Your task to perform on an android device: Turn off the flashlight Image 0: 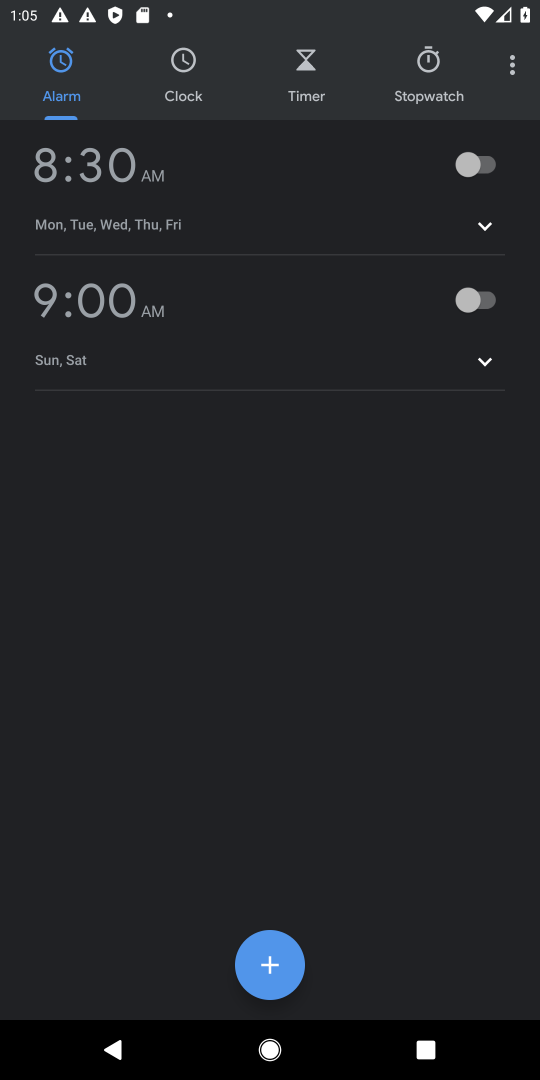
Step 0: press home button
Your task to perform on an android device: Turn off the flashlight Image 1: 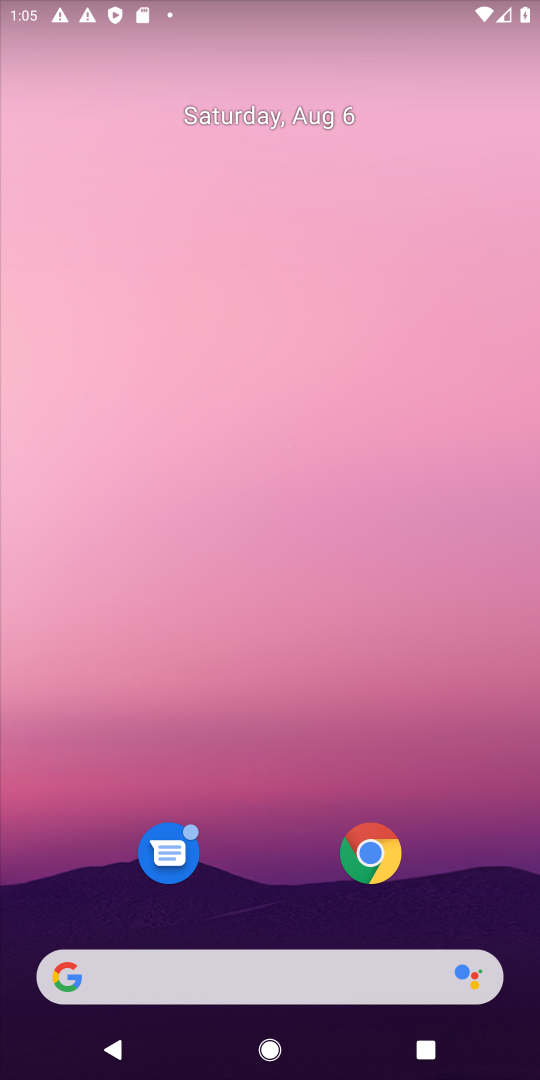
Step 1: drag from (299, 23) to (277, 890)
Your task to perform on an android device: Turn off the flashlight Image 2: 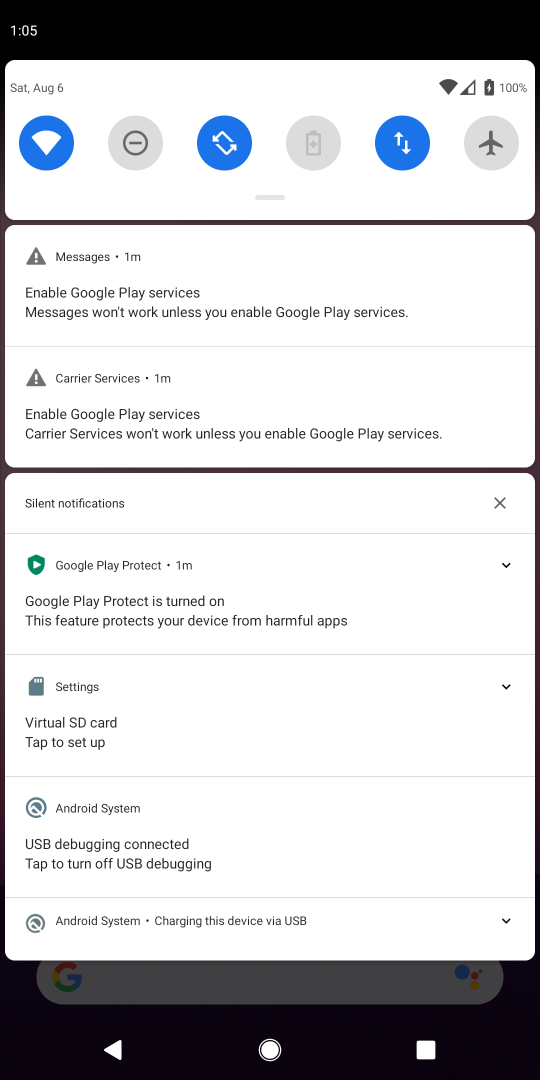
Step 2: drag from (265, 198) to (310, 727)
Your task to perform on an android device: Turn off the flashlight Image 3: 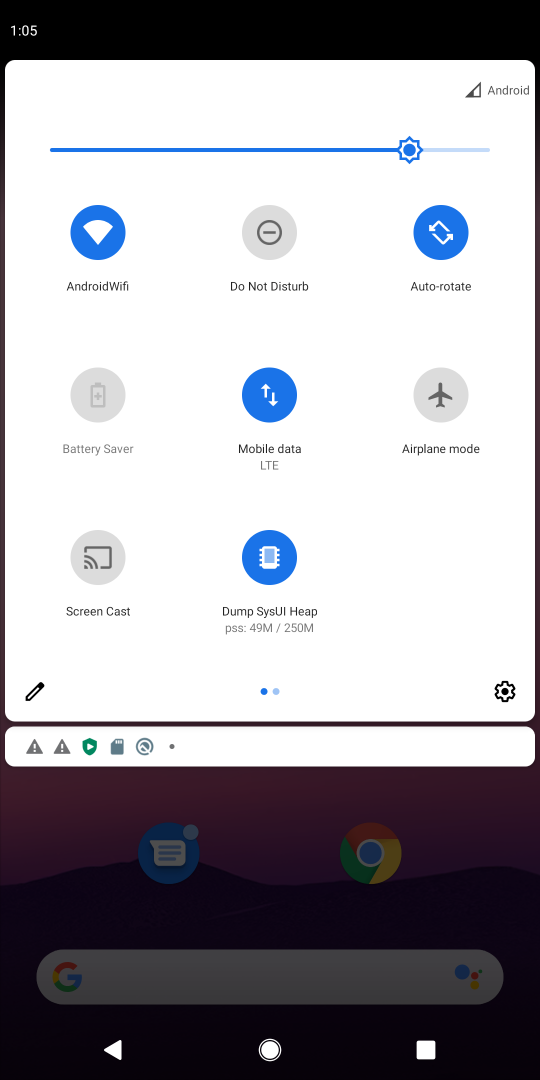
Step 3: click (30, 686)
Your task to perform on an android device: Turn off the flashlight Image 4: 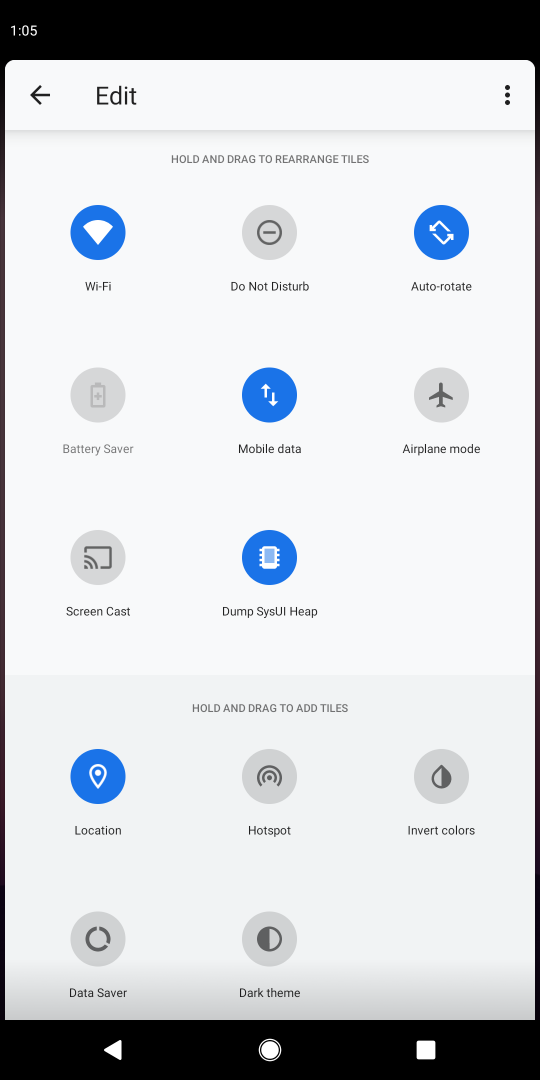
Step 4: task complete